Your task to perform on an android device: Open Youtube and go to "Your channel" Image 0: 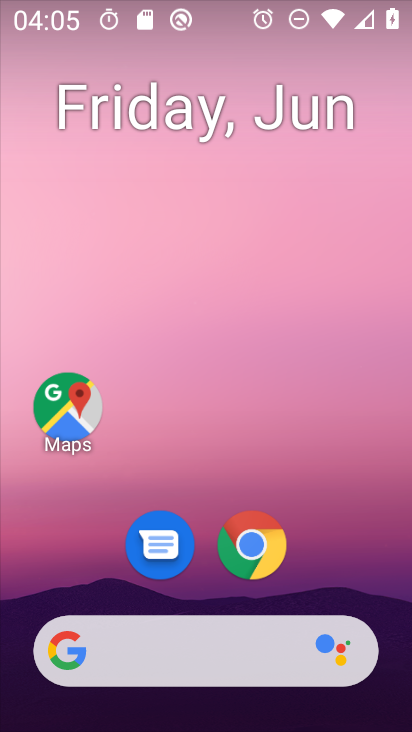
Step 0: drag from (376, 516) to (366, 2)
Your task to perform on an android device: Open Youtube and go to "Your channel" Image 1: 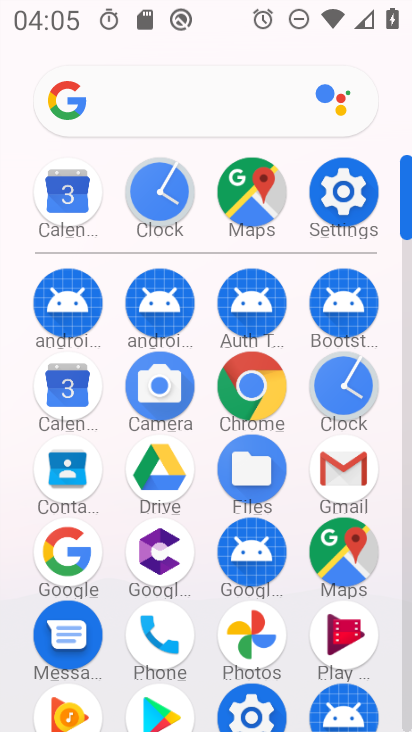
Step 1: drag from (276, 510) to (270, 199)
Your task to perform on an android device: Open Youtube and go to "Your channel" Image 2: 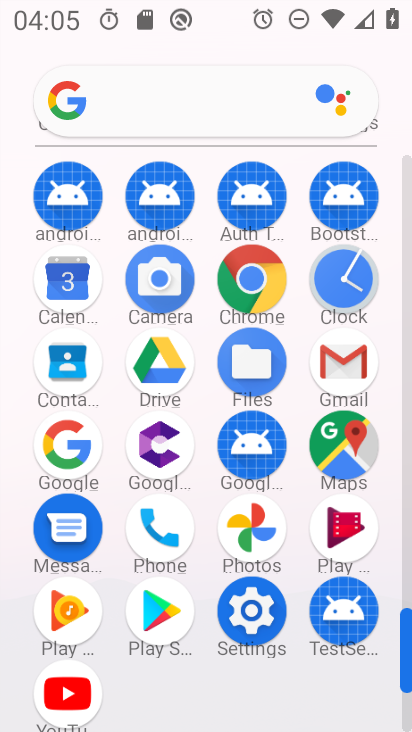
Step 2: click (55, 693)
Your task to perform on an android device: Open Youtube and go to "Your channel" Image 3: 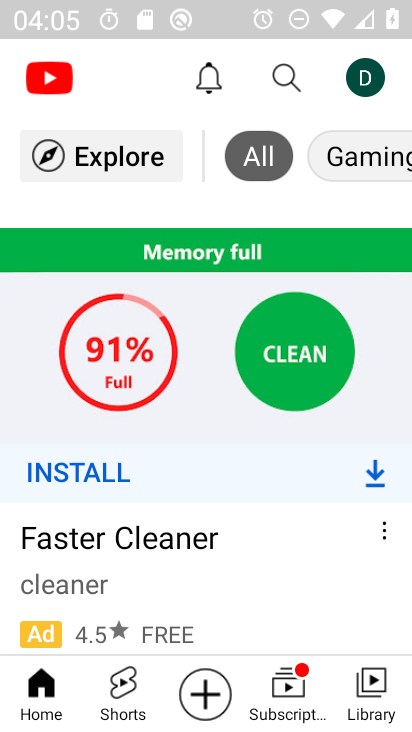
Step 3: click (371, 90)
Your task to perform on an android device: Open Youtube and go to "Your channel" Image 4: 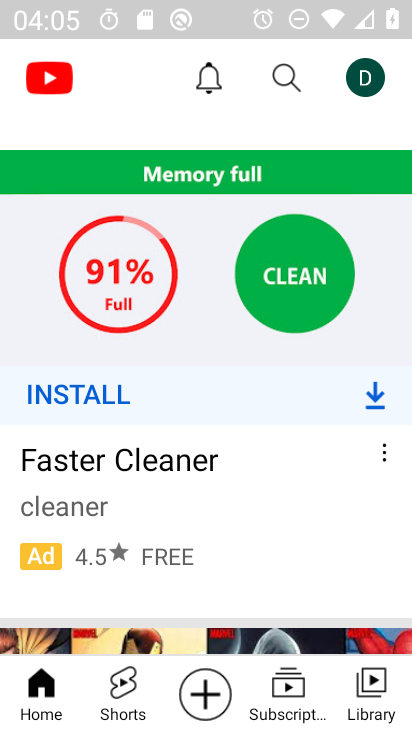
Step 4: click (366, 76)
Your task to perform on an android device: Open Youtube and go to "Your channel" Image 5: 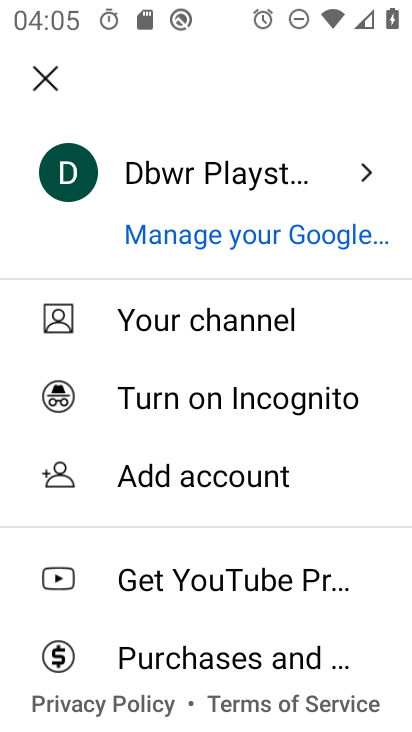
Step 5: click (174, 295)
Your task to perform on an android device: Open Youtube and go to "Your channel" Image 6: 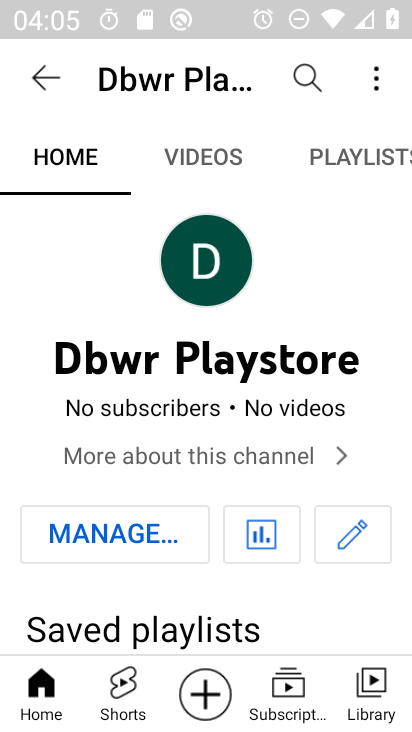
Step 6: task complete